Your task to perform on an android device: turn off data saver in the chrome app Image 0: 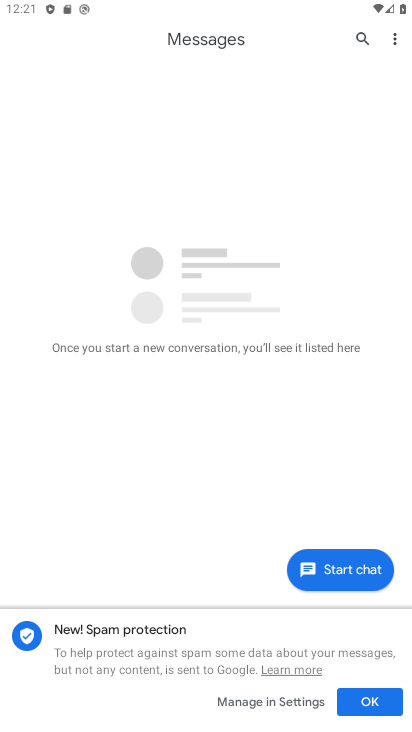
Step 0: press home button
Your task to perform on an android device: turn off data saver in the chrome app Image 1: 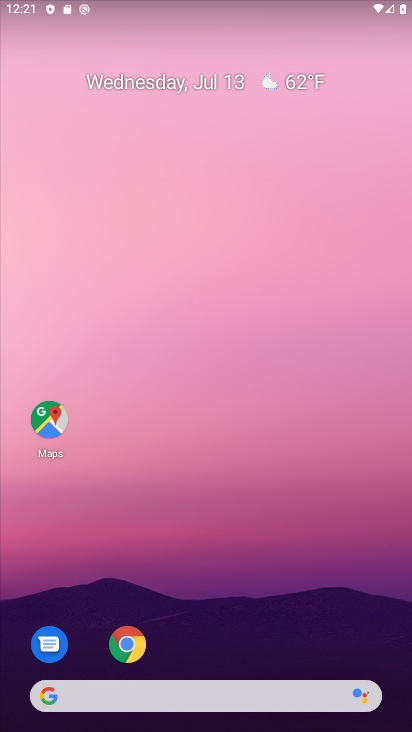
Step 1: drag from (243, 659) to (248, 142)
Your task to perform on an android device: turn off data saver in the chrome app Image 2: 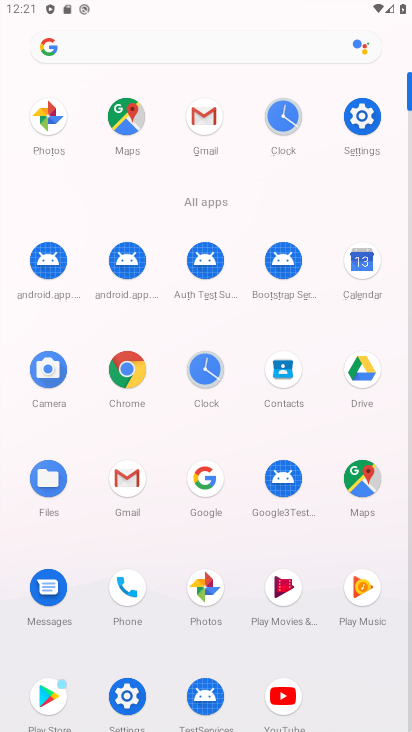
Step 2: click (136, 381)
Your task to perform on an android device: turn off data saver in the chrome app Image 3: 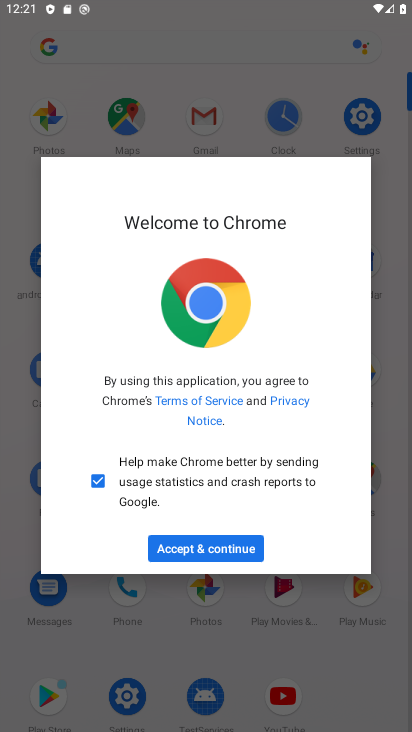
Step 3: click (220, 541)
Your task to perform on an android device: turn off data saver in the chrome app Image 4: 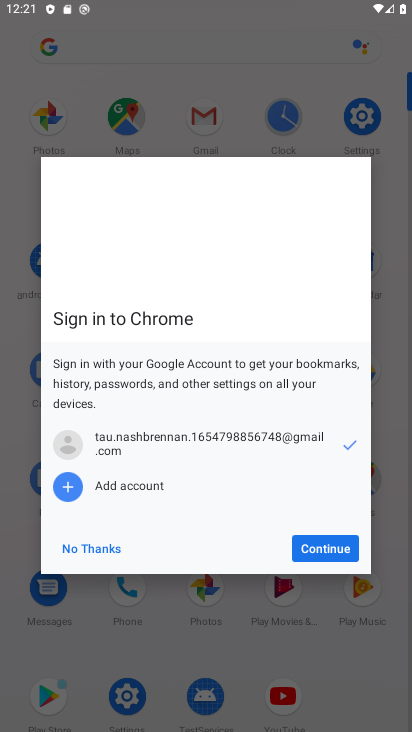
Step 4: click (328, 548)
Your task to perform on an android device: turn off data saver in the chrome app Image 5: 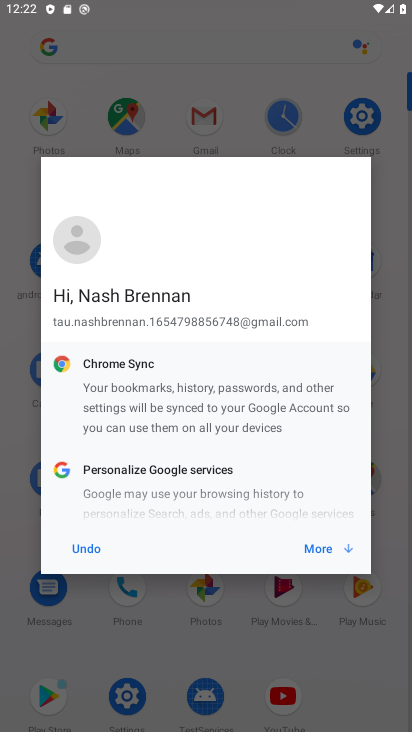
Step 5: click (328, 548)
Your task to perform on an android device: turn off data saver in the chrome app Image 6: 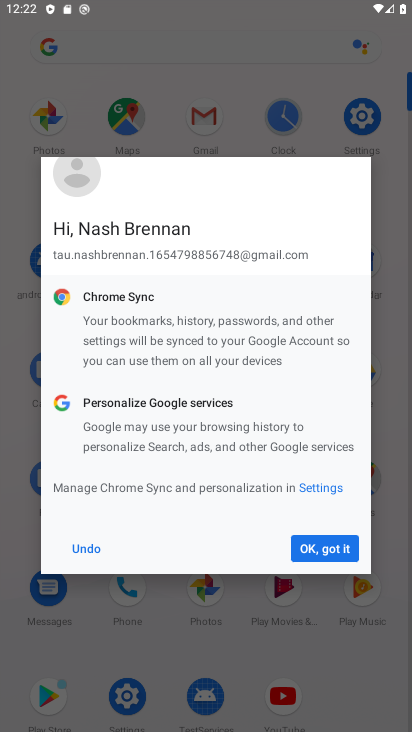
Step 6: click (328, 548)
Your task to perform on an android device: turn off data saver in the chrome app Image 7: 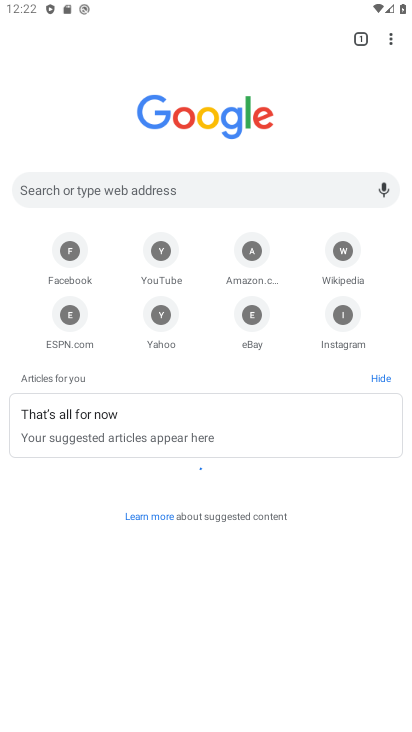
Step 7: click (389, 39)
Your task to perform on an android device: turn off data saver in the chrome app Image 8: 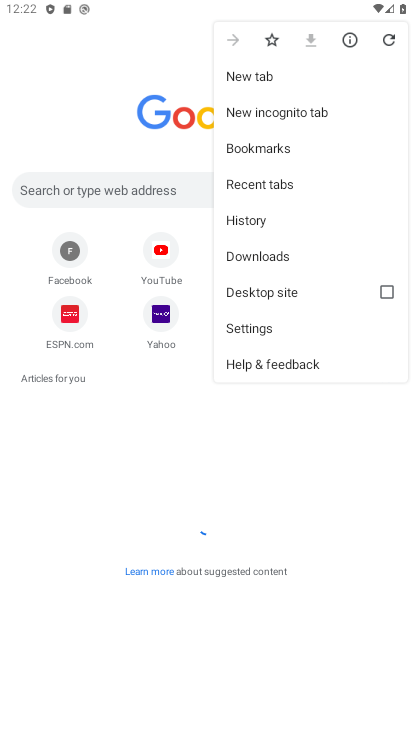
Step 8: click (246, 329)
Your task to perform on an android device: turn off data saver in the chrome app Image 9: 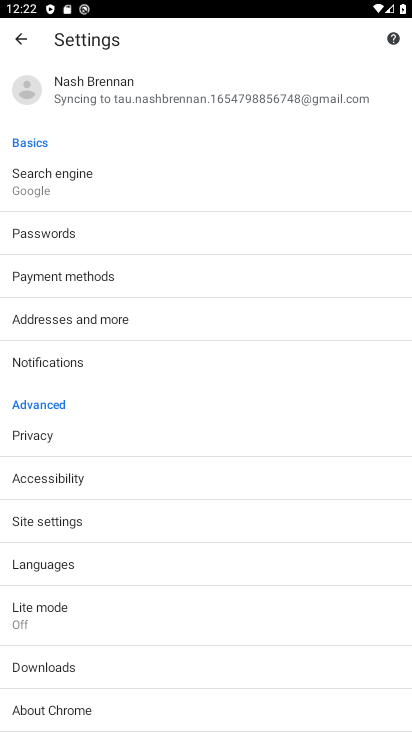
Step 9: click (99, 611)
Your task to perform on an android device: turn off data saver in the chrome app Image 10: 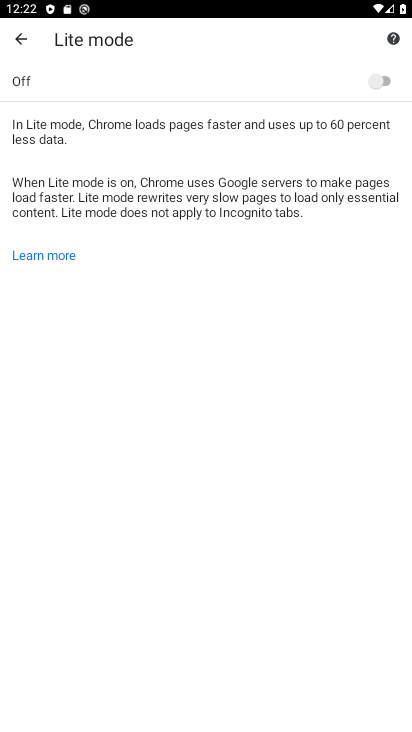
Step 10: task complete